Your task to perform on an android device: turn on sleep mode Image 0: 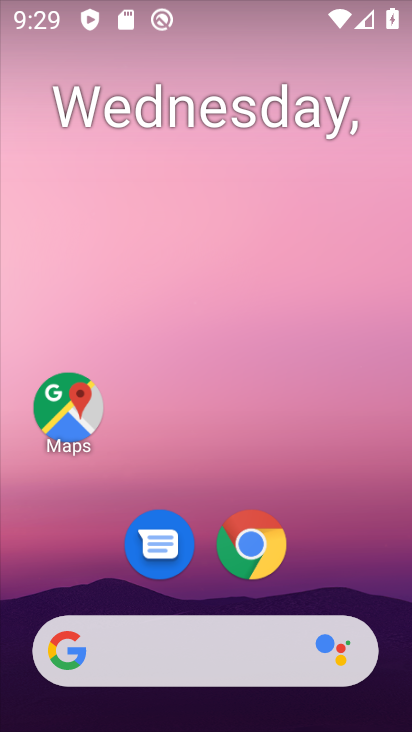
Step 0: drag from (391, 595) to (358, 14)
Your task to perform on an android device: turn on sleep mode Image 1: 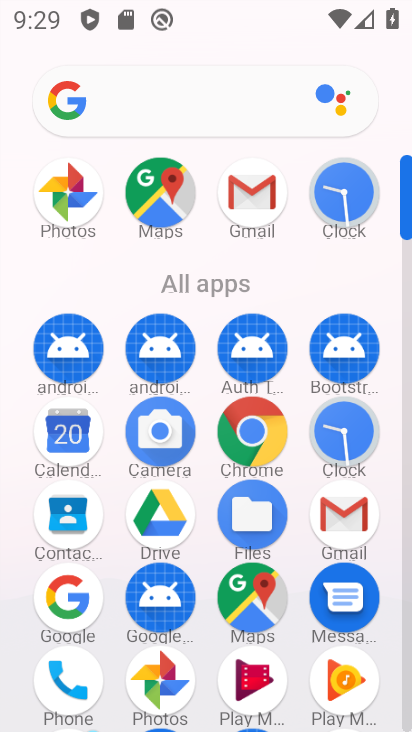
Step 1: click (404, 710)
Your task to perform on an android device: turn on sleep mode Image 2: 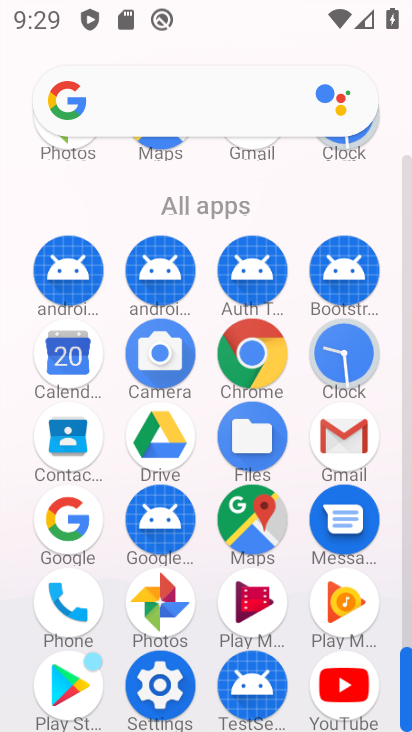
Step 2: click (140, 675)
Your task to perform on an android device: turn on sleep mode Image 3: 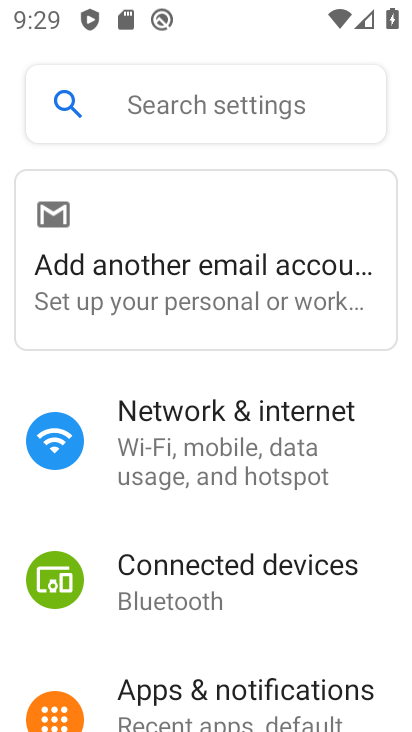
Step 3: drag from (272, 634) to (279, 137)
Your task to perform on an android device: turn on sleep mode Image 4: 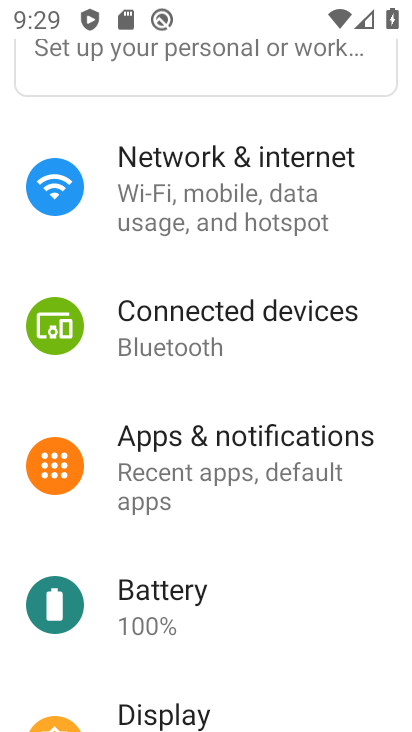
Step 4: drag from (281, 614) to (198, 133)
Your task to perform on an android device: turn on sleep mode Image 5: 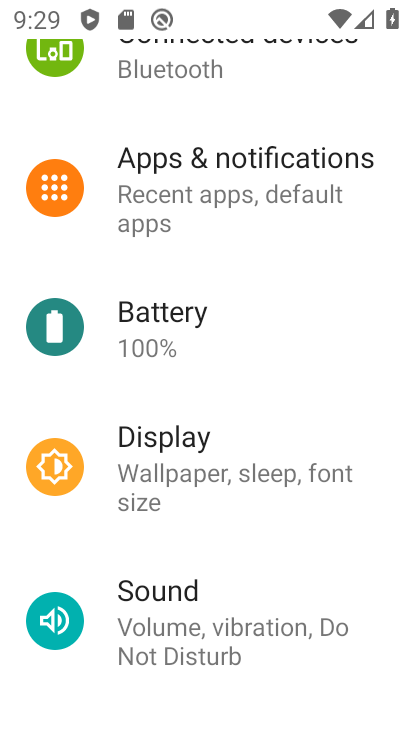
Step 5: click (219, 459)
Your task to perform on an android device: turn on sleep mode Image 6: 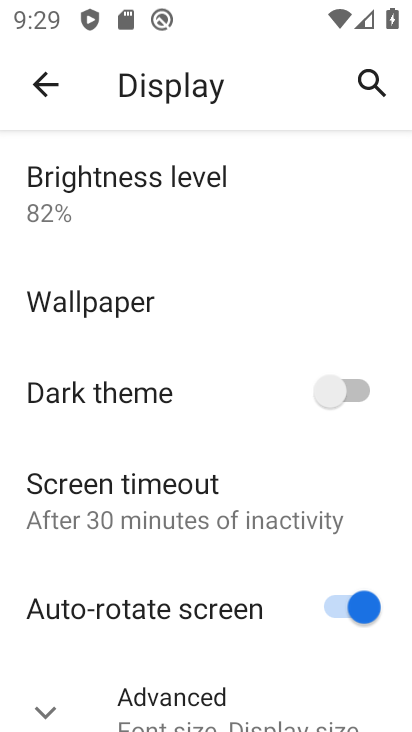
Step 6: drag from (235, 671) to (214, 441)
Your task to perform on an android device: turn on sleep mode Image 7: 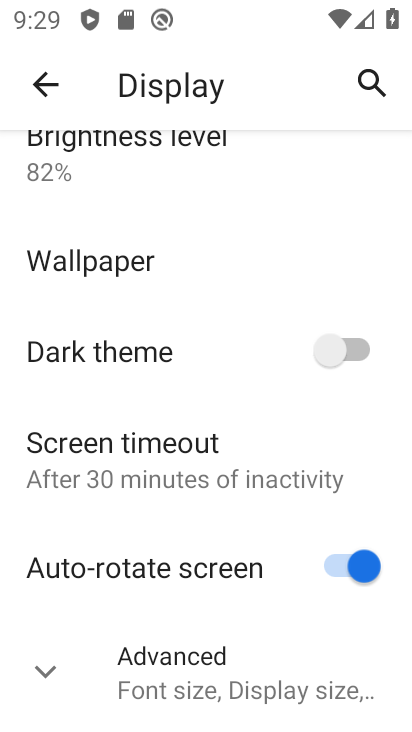
Step 7: click (244, 694)
Your task to perform on an android device: turn on sleep mode Image 8: 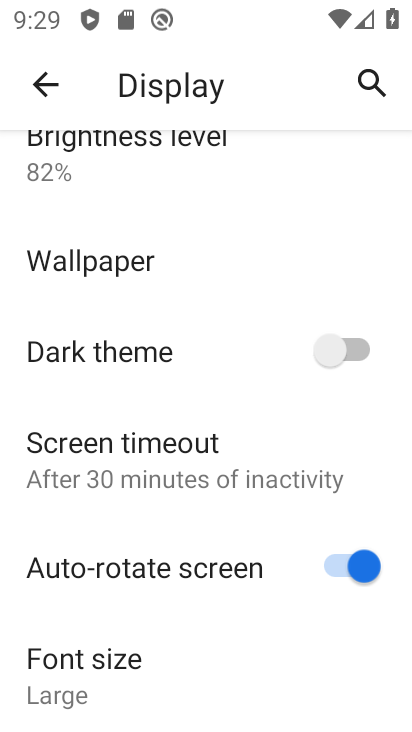
Step 8: task complete